Your task to perform on an android device: change the clock display to analog Image 0: 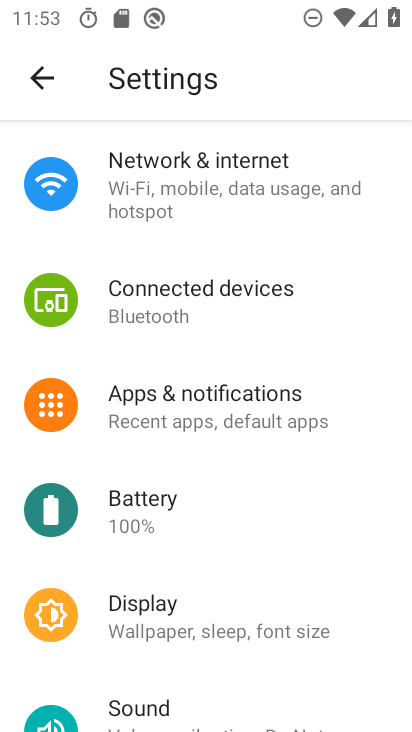
Step 0: press home button
Your task to perform on an android device: change the clock display to analog Image 1: 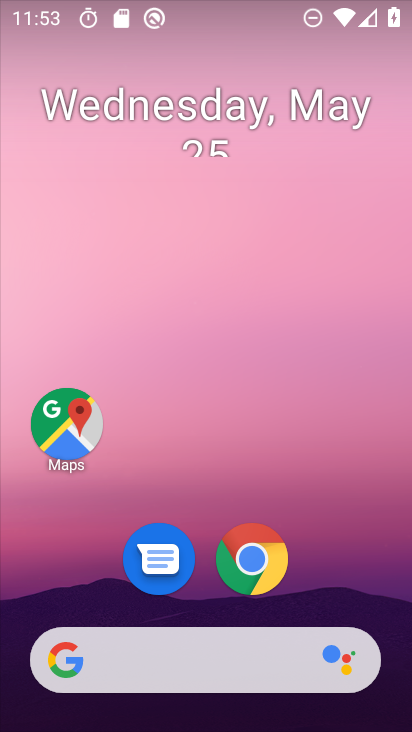
Step 1: drag from (335, 578) to (355, 178)
Your task to perform on an android device: change the clock display to analog Image 2: 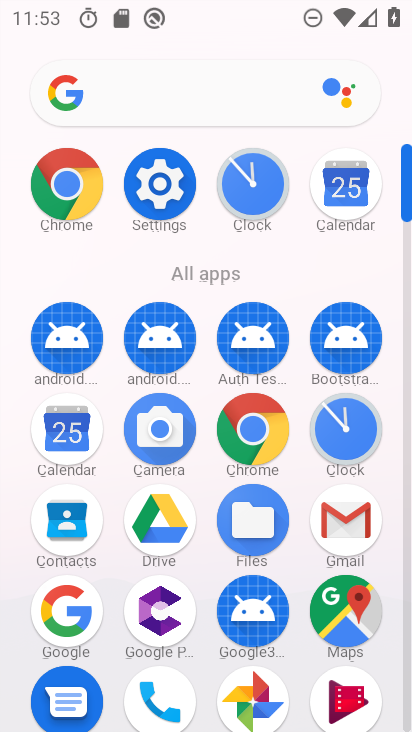
Step 2: click (145, 203)
Your task to perform on an android device: change the clock display to analog Image 3: 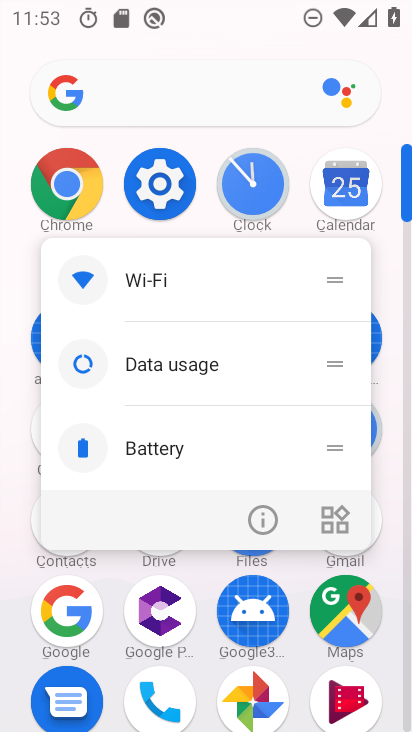
Step 3: click (382, 449)
Your task to perform on an android device: change the clock display to analog Image 4: 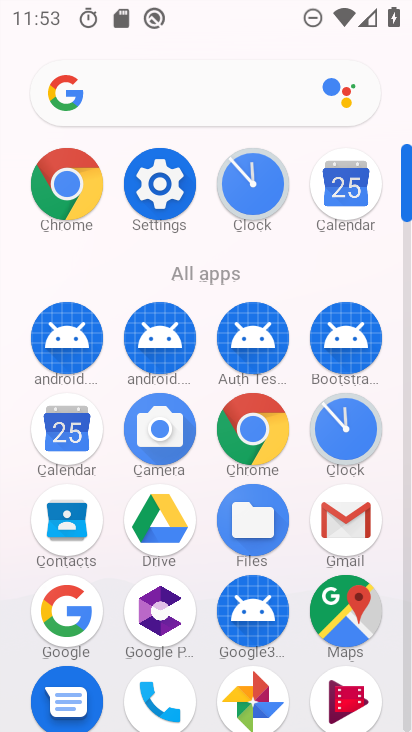
Step 4: click (339, 446)
Your task to perform on an android device: change the clock display to analog Image 5: 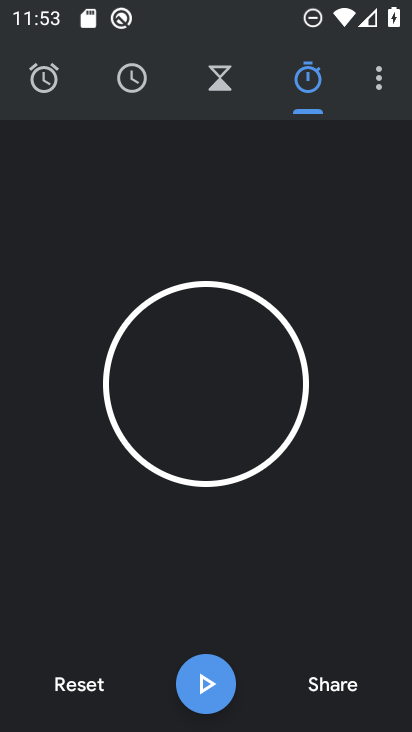
Step 5: drag from (385, 83) to (219, 151)
Your task to perform on an android device: change the clock display to analog Image 6: 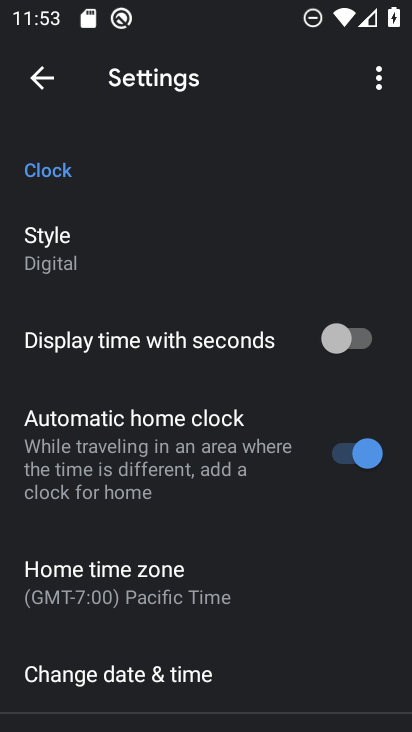
Step 6: click (60, 254)
Your task to perform on an android device: change the clock display to analog Image 7: 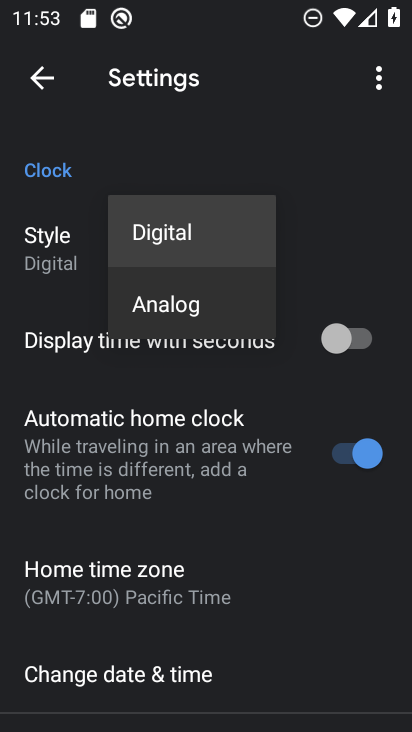
Step 7: click (141, 305)
Your task to perform on an android device: change the clock display to analog Image 8: 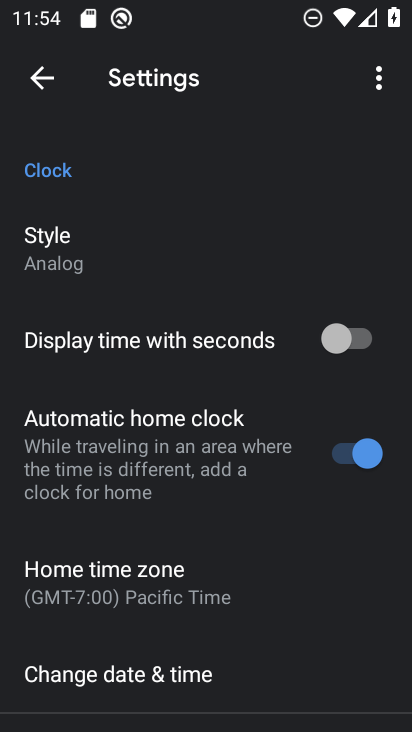
Step 8: task complete